Your task to perform on an android device: Play the last video I watched on Youtube Image 0: 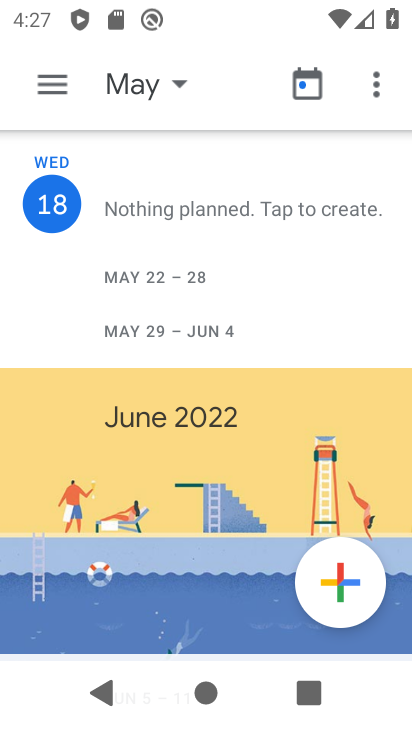
Step 0: press home button
Your task to perform on an android device: Play the last video I watched on Youtube Image 1: 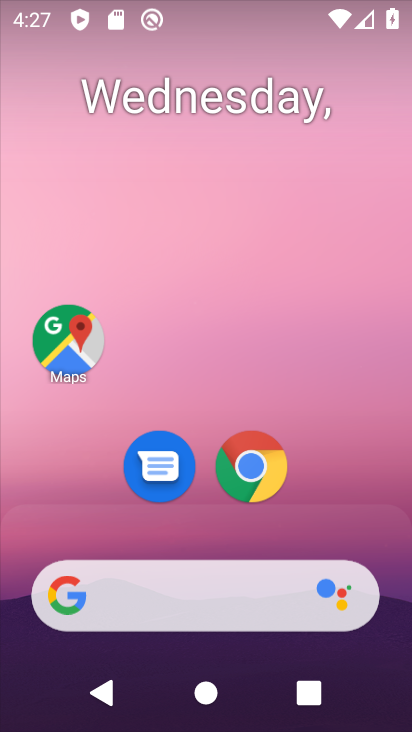
Step 1: drag from (399, 604) to (326, 157)
Your task to perform on an android device: Play the last video I watched on Youtube Image 2: 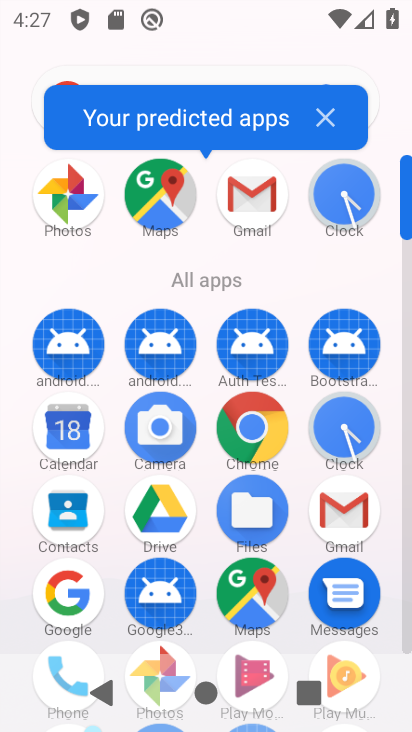
Step 2: click (406, 633)
Your task to perform on an android device: Play the last video I watched on Youtube Image 3: 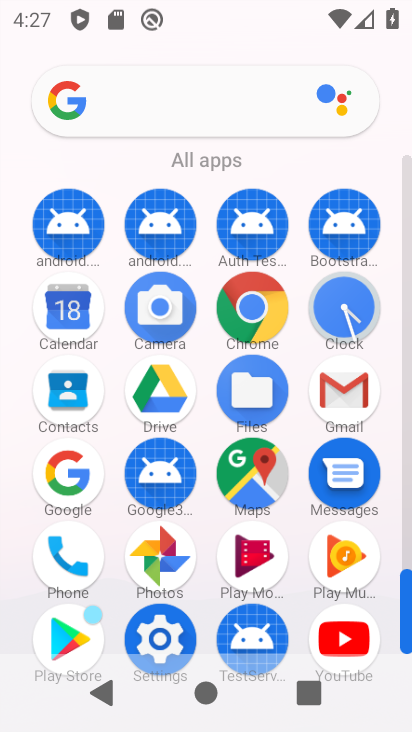
Step 3: click (343, 636)
Your task to perform on an android device: Play the last video I watched on Youtube Image 4: 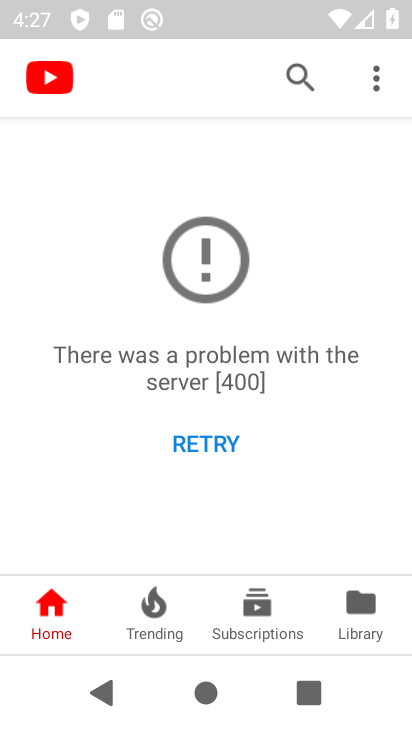
Step 4: click (359, 607)
Your task to perform on an android device: Play the last video I watched on Youtube Image 5: 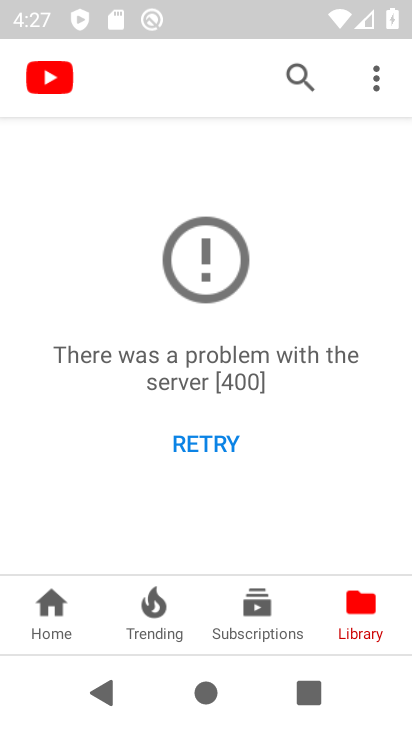
Step 5: click (187, 443)
Your task to perform on an android device: Play the last video I watched on Youtube Image 6: 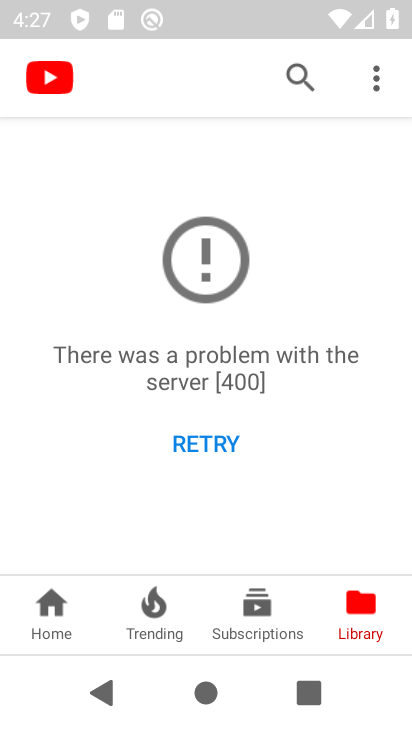
Step 6: task complete